Your task to perform on an android device: open app "Pinterest" (install if not already installed) and go to login screen Image 0: 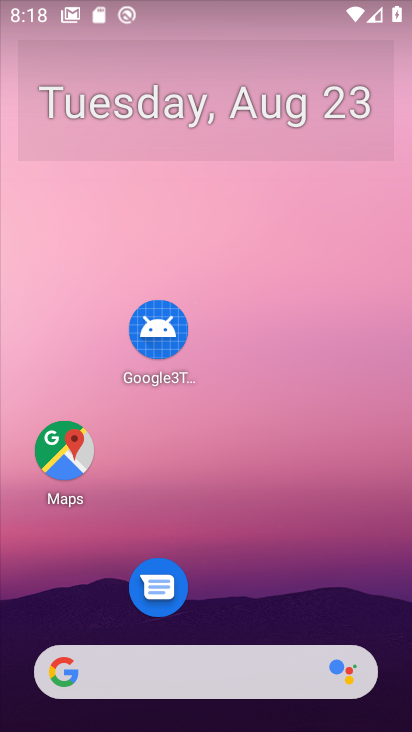
Step 0: drag from (258, 634) to (272, 118)
Your task to perform on an android device: open app "Pinterest" (install if not already installed) and go to login screen Image 1: 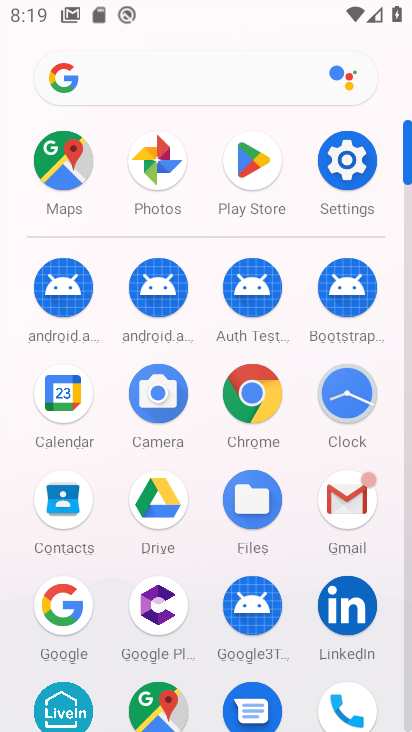
Step 1: click (239, 174)
Your task to perform on an android device: open app "Pinterest" (install if not already installed) and go to login screen Image 2: 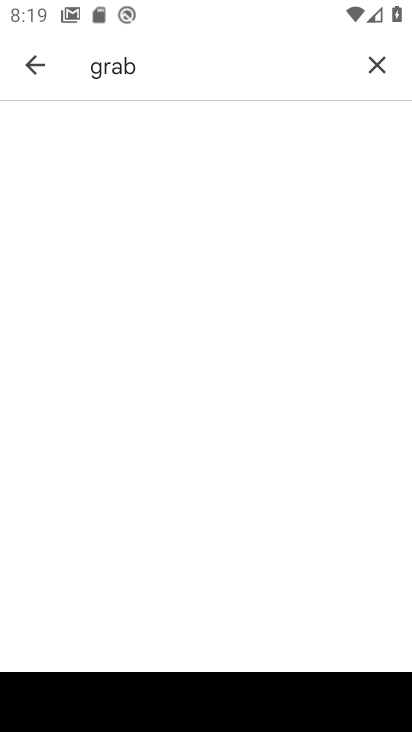
Step 2: click (364, 71)
Your task to perform on an android device: open app "Pinterest" (install if not already installed) and go to login screen Image 3: 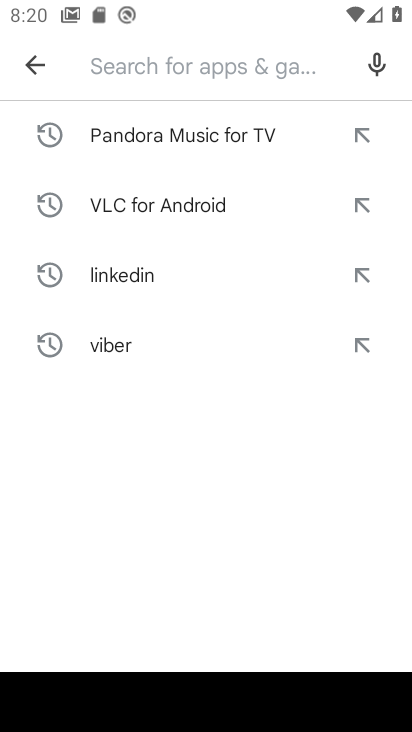
Step 3: type "pintrest"
Your task to perform on an android device: open app "Pinterest" (install if not already installed) and go to login screen Image 4: 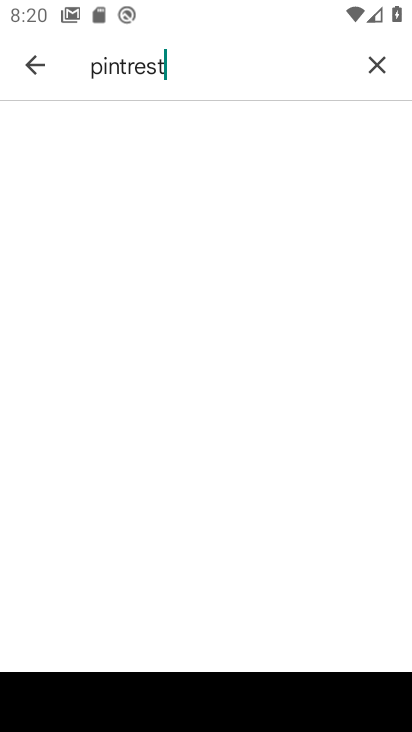
Step 4: click (99, 138)
Your task to perform on an android device: open app "Pinterest" (install if not already installed) and go to login screen Image 5: 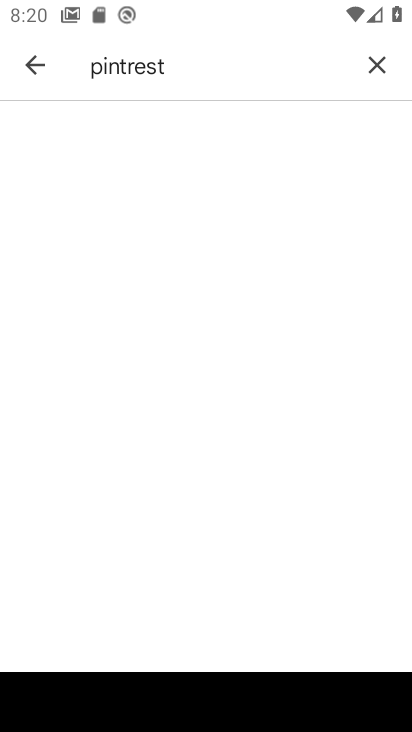
Step 5: task complete